Your task to perform on an android device: Open my contact list Image 0: 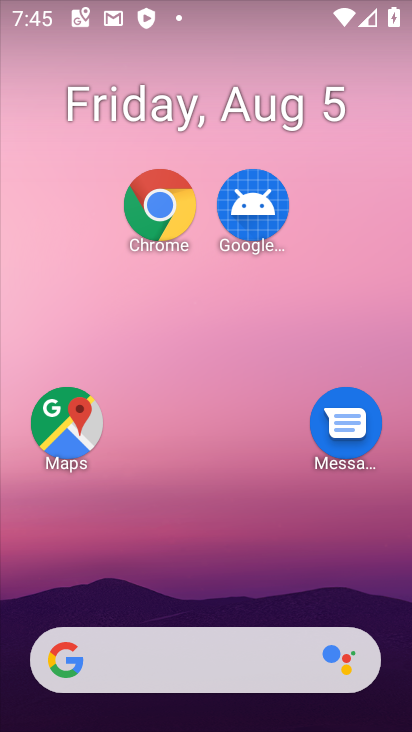
Step 0: drag from (208, 618) to (172, 239)
Your task to perform on an android device: Open my contact list Image 1: 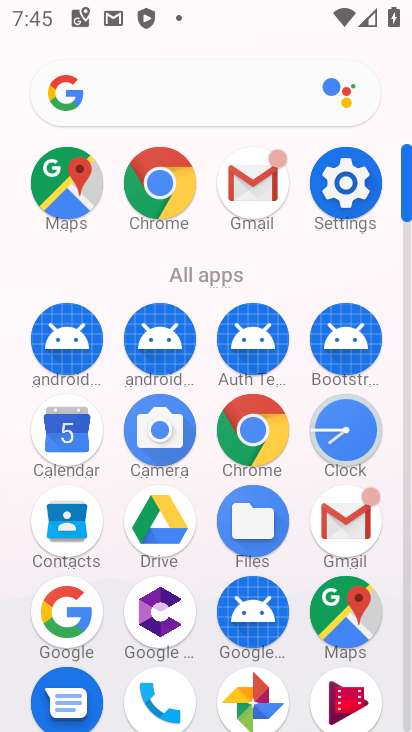
Step 1: click (77, 526)
Your task to perform on an android device: Open my contact list Image 2: 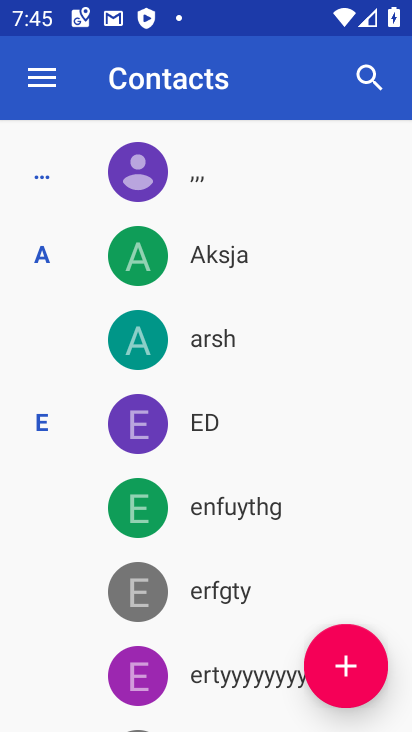
Step 2: task complete